Your task to perform on an android device: Go to network settings Image 0: 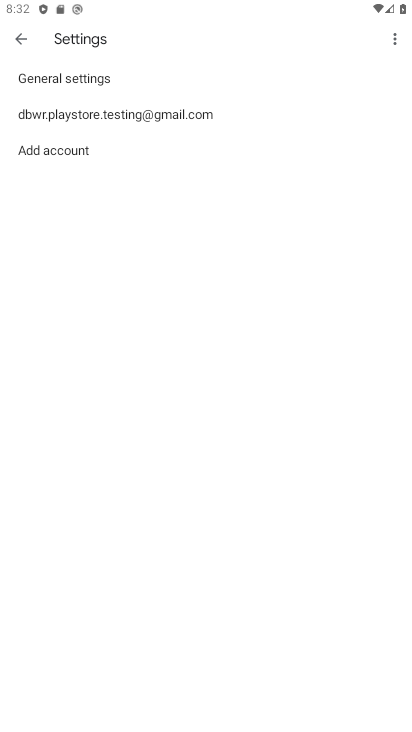
Step 0: press home button
Your task to perform on an android device: Go to network settings Image 1: 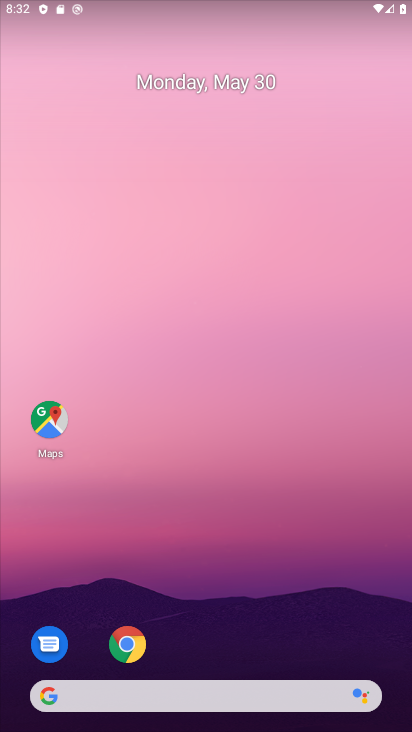
Step 1: drag from (396, 672) to (330, 45)
Your task to perform on an android device: Go to network settings Image 2: 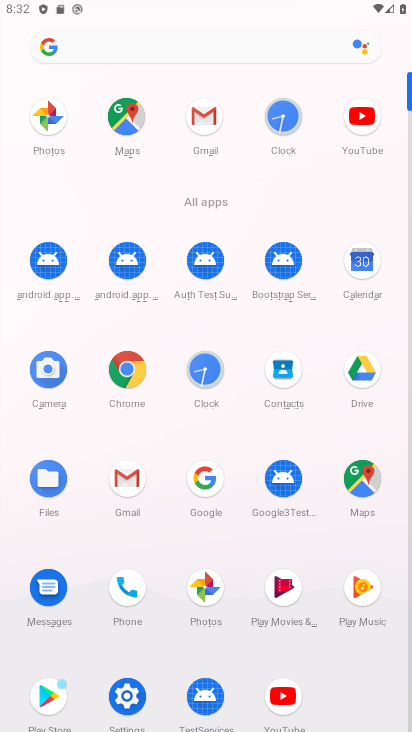
Step 2: click (127, 697)
Your task to perform on an android device: Go to network settings Image 3: 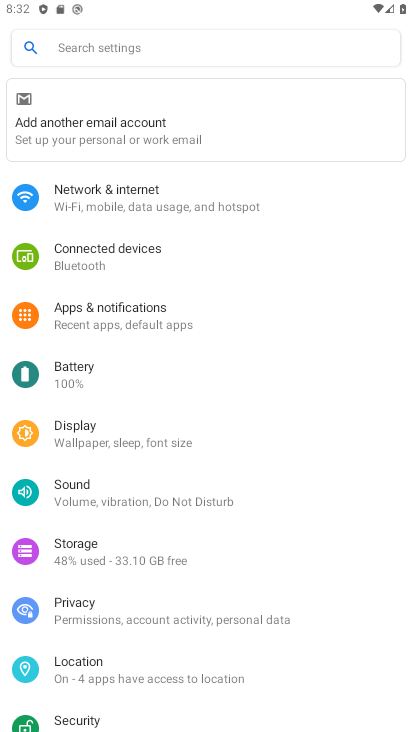
Step 3: click (101, 192)
Your task to perform on an android device: Go to network settings Image 4: 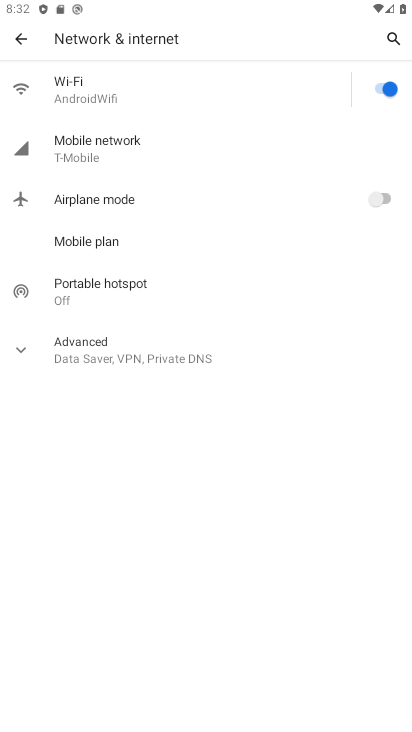
Step 4: click (83, 150)
Your task to perform on an android device: Go to network settings Image 5: 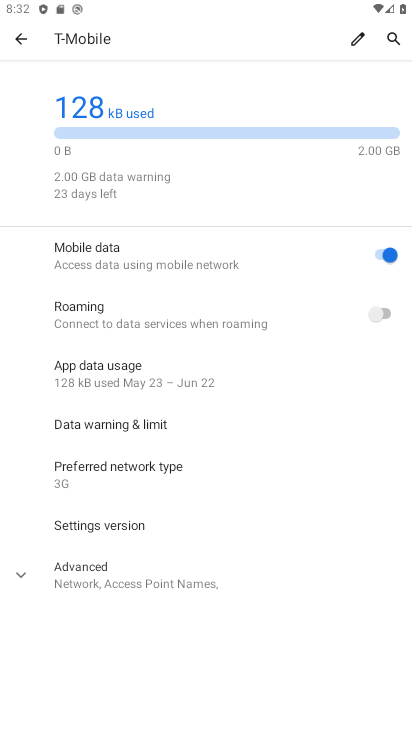
Step 5: click (16, 577)
Your task to perform on an android device: Go to network settings Image 6: 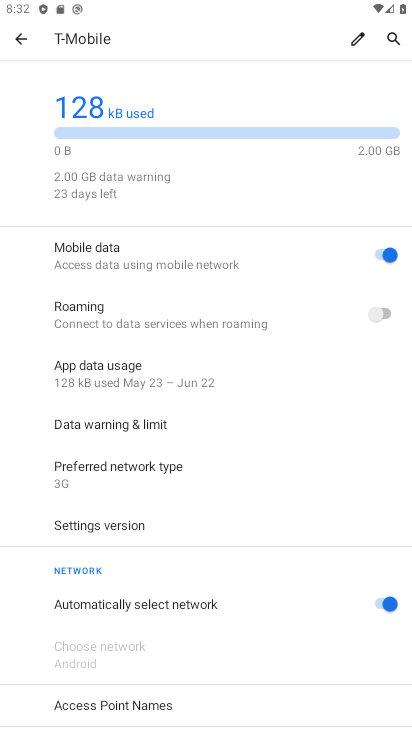
Step 6: task complete